Your task to perform on an android device: open sync settings in chrome Image 0: 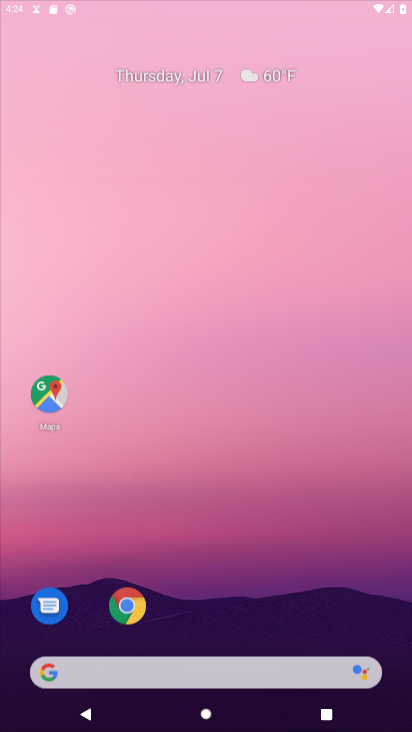
Step 0: drag from (242, 673) to (294, 77)
Your task to perform on an android device: open sync settings in chrome Image 1: 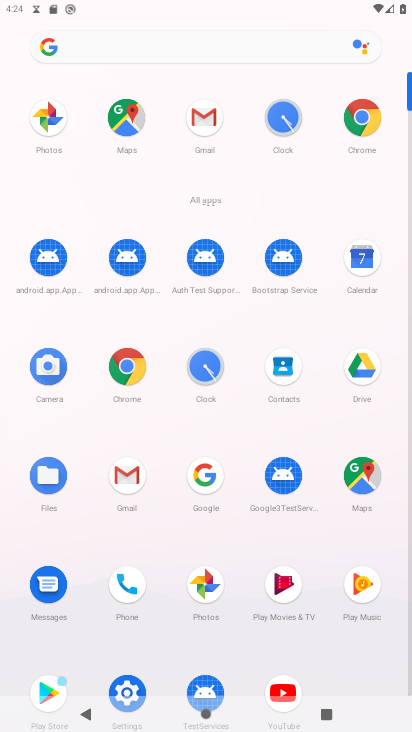
Step 1: click (140, 366)
Your task to perform on an android device: open sync settings in chrome Image 2: 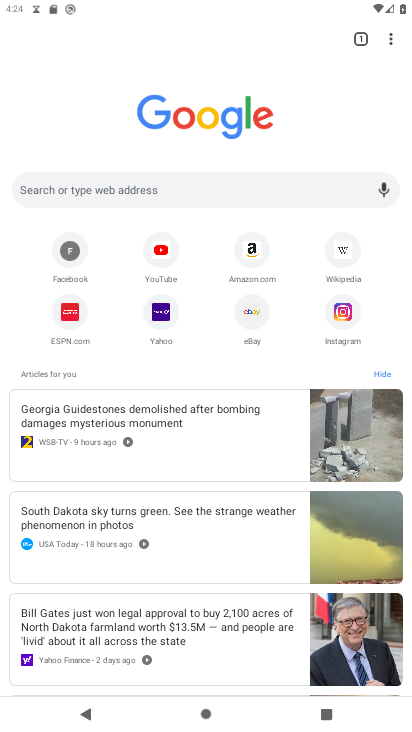
Step 2: drag from (396, 33) to (276, 319)
Your task to perform on an android device: open sync settings in chrome Image 3: 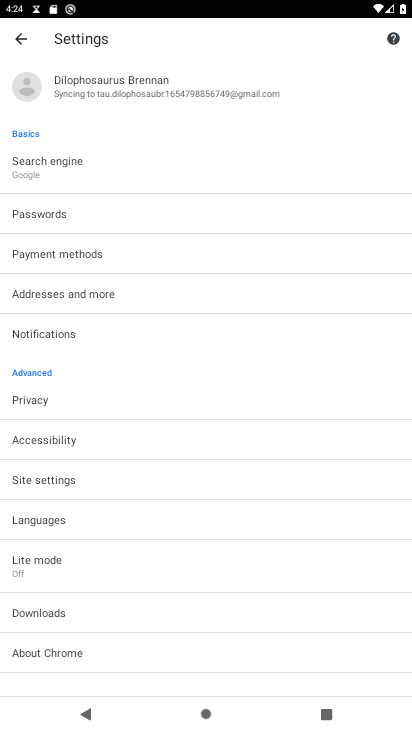
Step 3: click (205, 99)
Your task to perform on an android device: open sync settings in chrome Image 4: 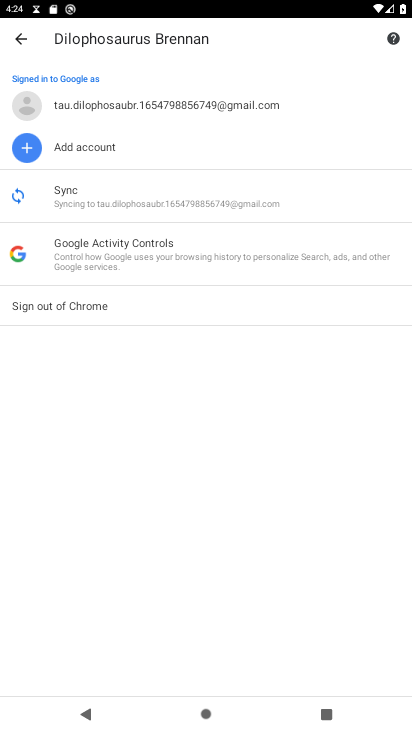
Step 4: click (129, 200)
Your task to perform on an android device: open sync settings in chrome Image 5: 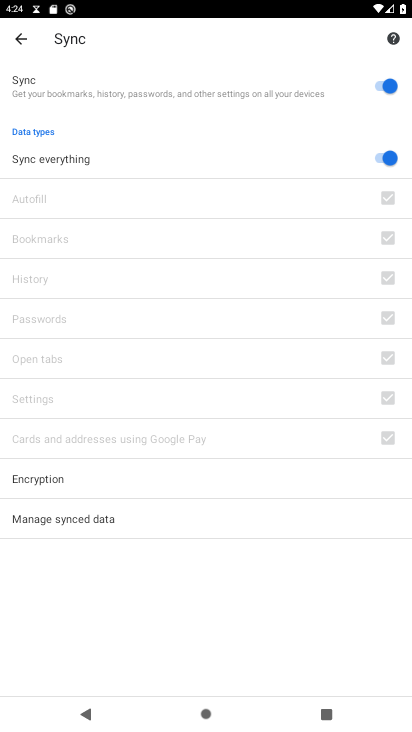
Step 5: task complete